Your task to perform on an android device: check battery use Image 0: 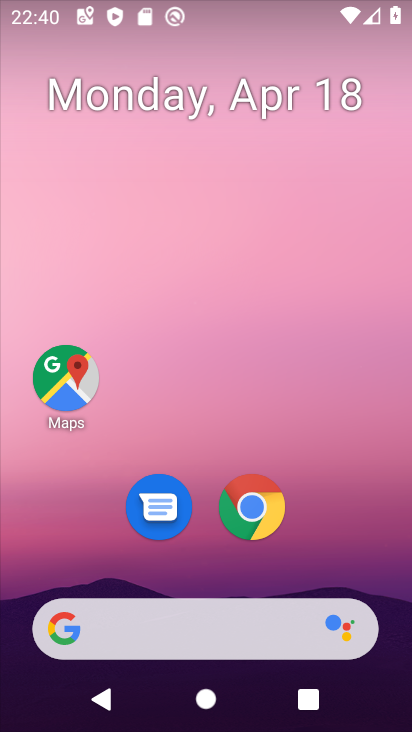
Step 0: drag from (330, 425) to (355, 123)
Your task to perform on an android device: check battery use Image 1: 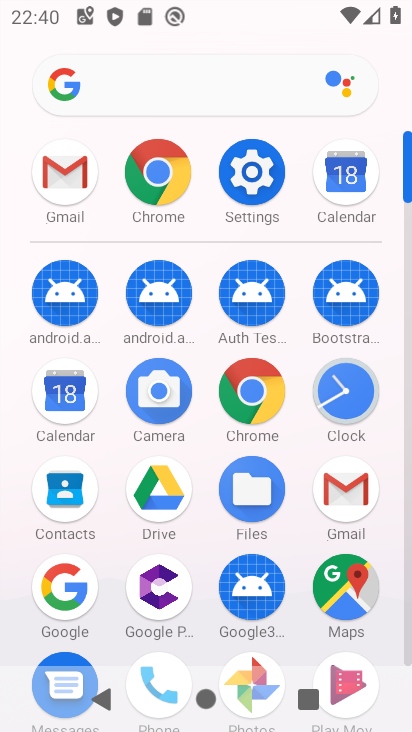
Step 1: click (257, 180)
Your task to perform on an android device: check battery use Image 2: 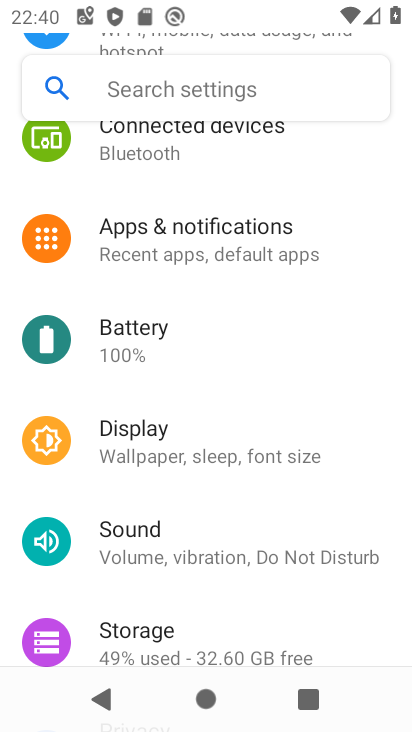
Step 2: click (188, 335)
Your task to perform on an android device: check battery use Image 3: 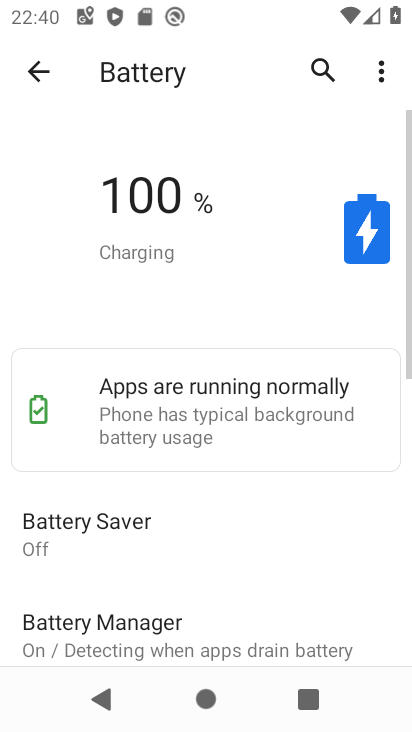
Step 3: click (385, 69)
Your task to perform on an android device: check battery use Image 4: 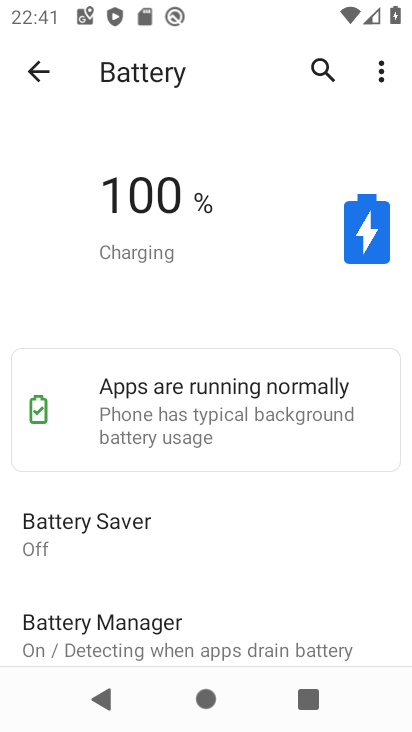
Step 4: click (379, 60)
Your task to perform on an android device: check battery use Image 5: 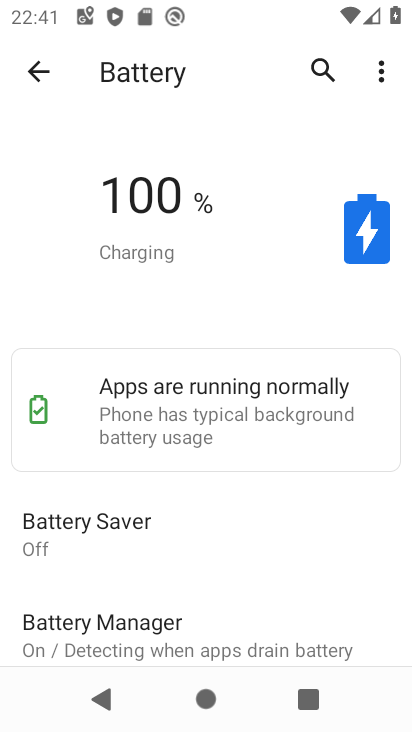
Step 5: click (379, 63)
Your task to perform on an android device: check battery use Image 6: 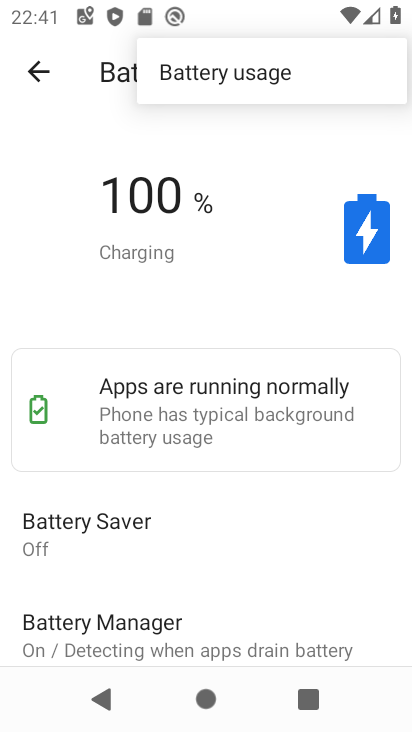
Step 6: click (338, 66)
Your task to perform on an android device: check battery use Image 7: 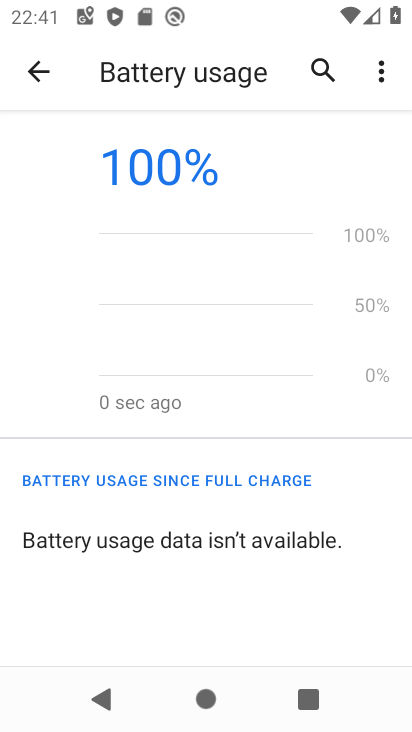
Step 7: task complete